Your task to perform on an android device: check android version Image 0: 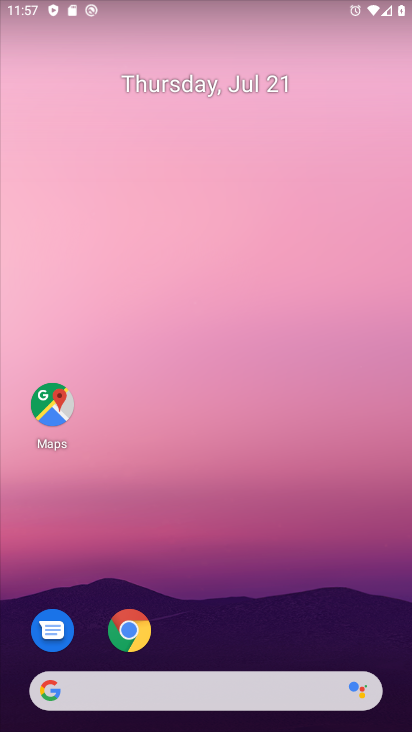
Step 0: drag from (219, 613) to (108, 73)
Your task to perform on an android device: check android version Image 1: 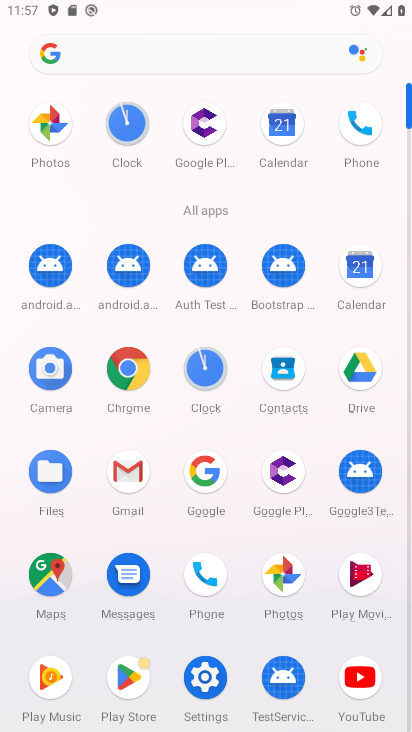
Step 1: click (198, 677)
Your task to perform on an android device: check android version Image 2: 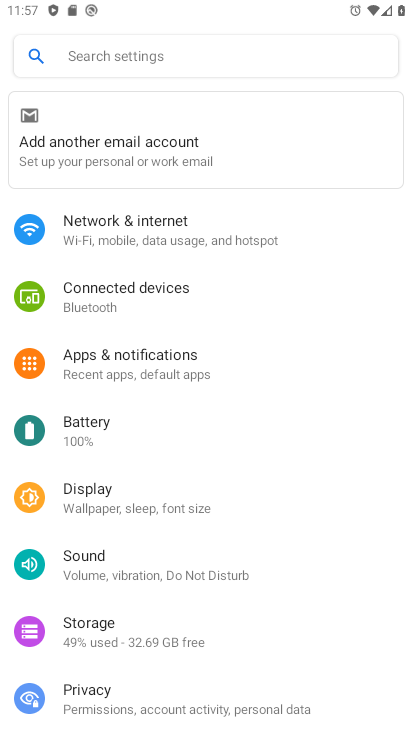
Step 2: drag from (208, 580) to (206, 74)
Your task to perform on an android device: check android version Image 3: 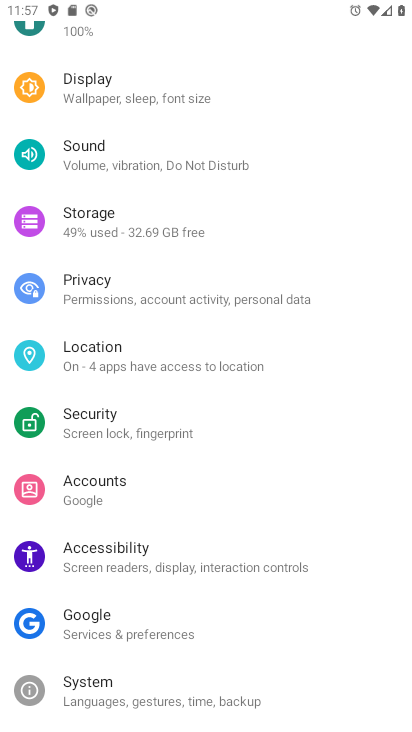
Step 3: drag from (285, 674) to (306, 307)
Your task to perform on an android device: check android version Image 4: 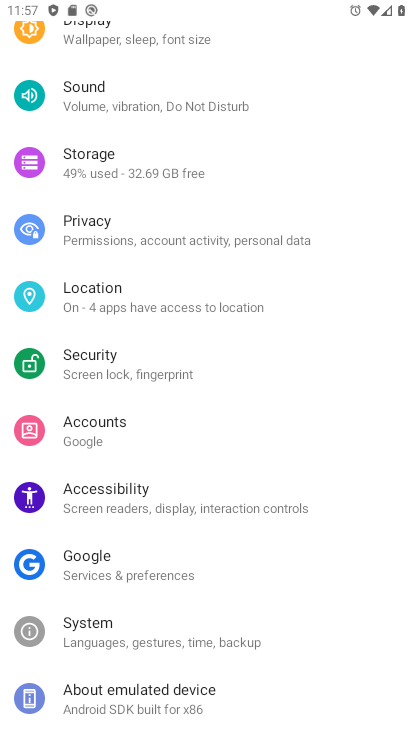
Step 4: click (157, 695)
Your task to perform on an android device: check android version Image 5: 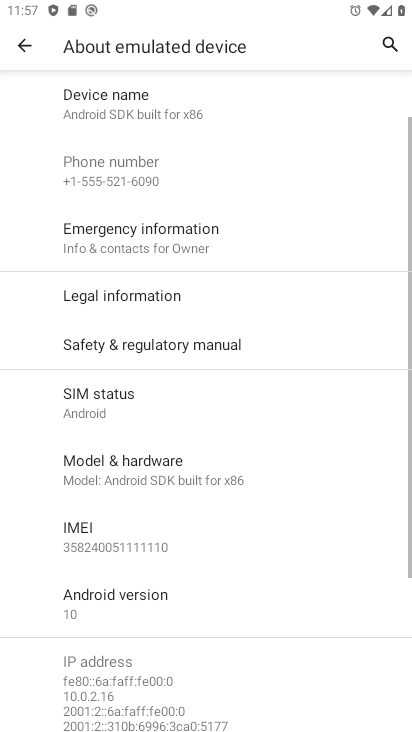
Step 5: click (117, 601)
Your task to perform on an android device: check android version Image 6: 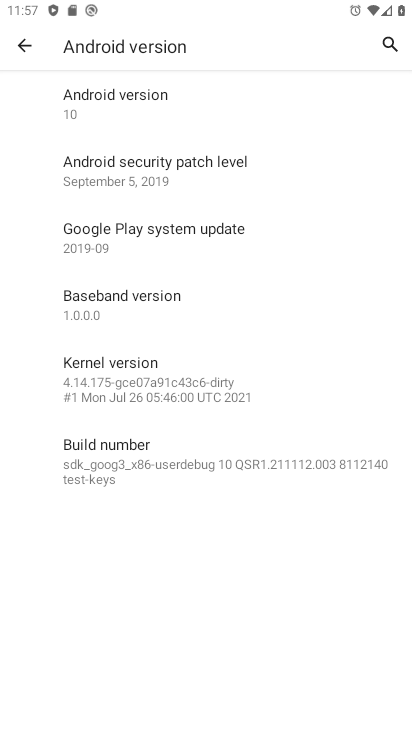
Step 6: task complete